Your task to perform on an android device: Open the stopwatch Image 0: 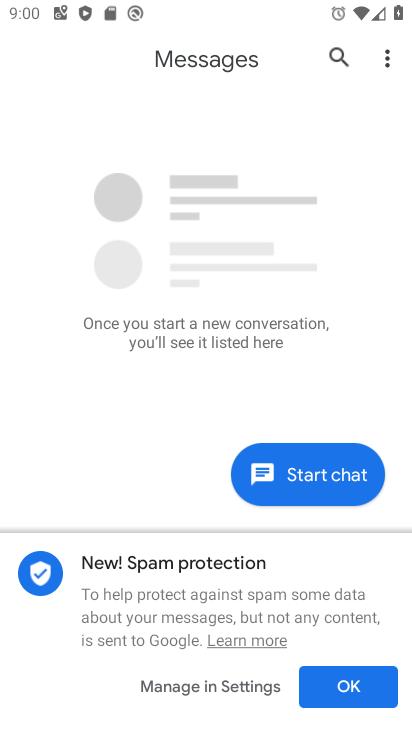
Step 0: press back button
Your task to perform on an android device: Open the stopwatch Image 1: 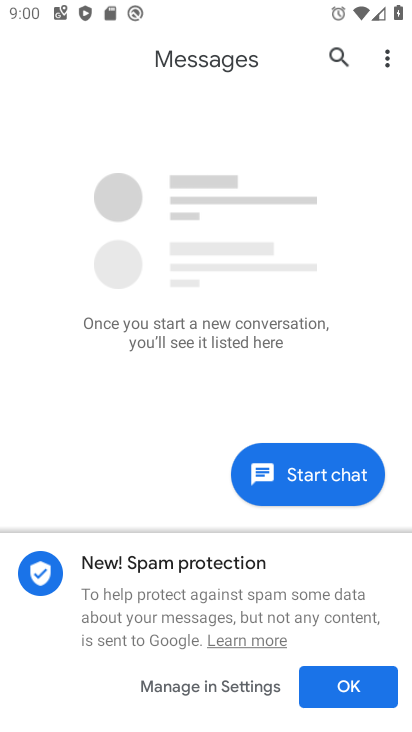
Step 1: press home button
Your task to perform on an android device: Open the stopwatch Image 2: 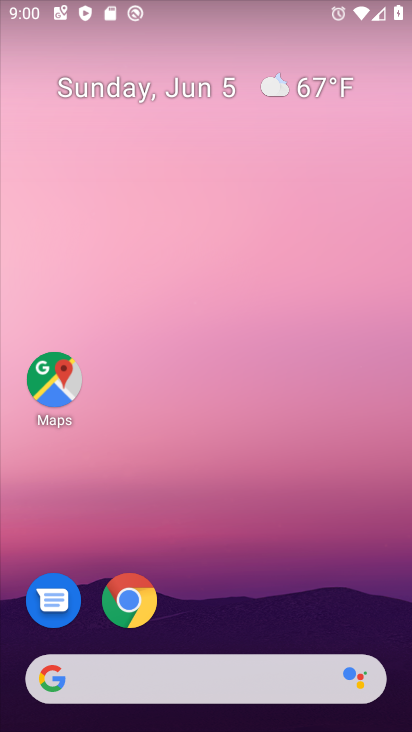
Step 2: drag from (367, 619) to (42, 48)
Your task to perform on an android device: Open the stopwatch Image 3: 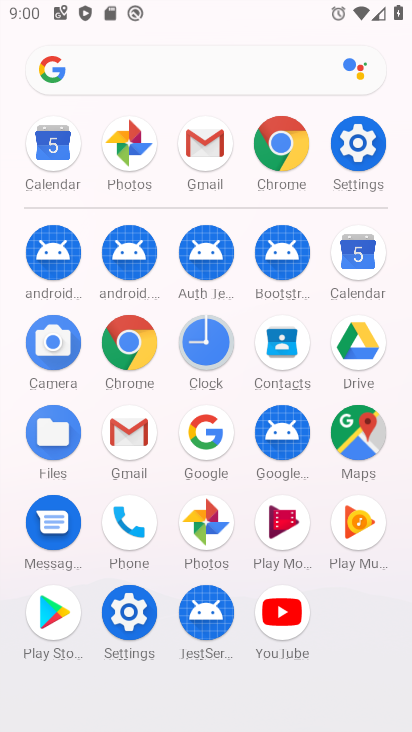
Step 3: click (214, 357)
Your task to perform on an android device: Open the stopwatch Image 4: 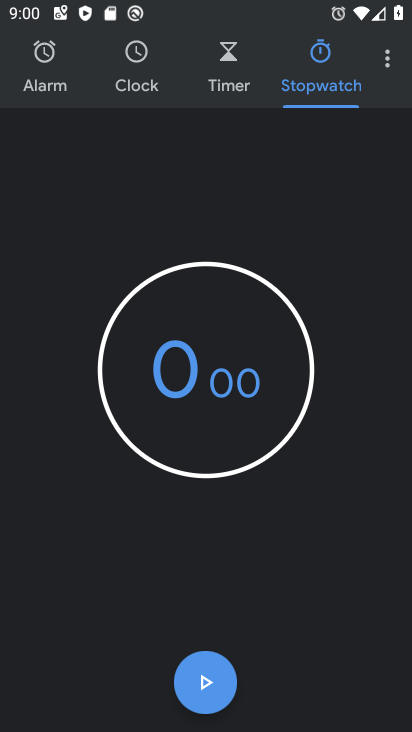
Step 4: task complete